Your task to perform on an android device: see sites visited before in the chrome app Image 0: 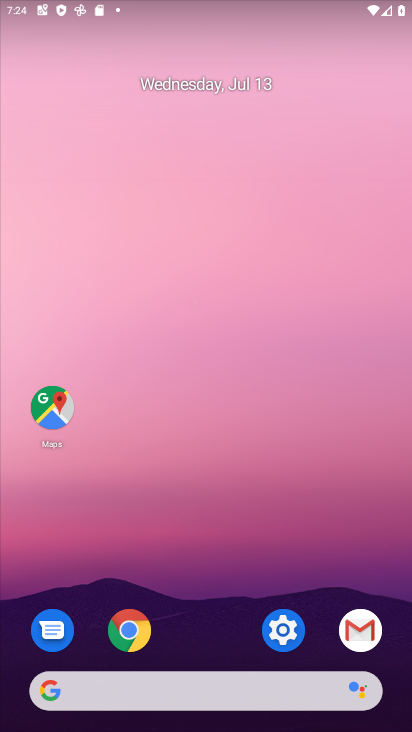
Step 0: press home button
Your task to perform on an android device: see sites visited before in the chrome app Image 1: 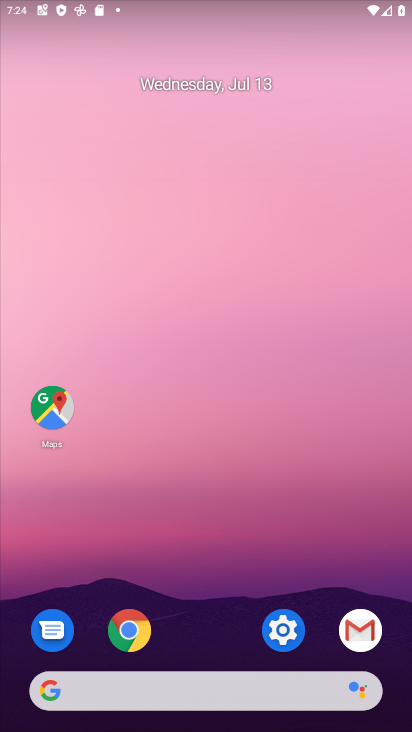
Step 1: click (133, 615)
Your task to perform on an android device: see sites visited before in the chrome app Image 2: 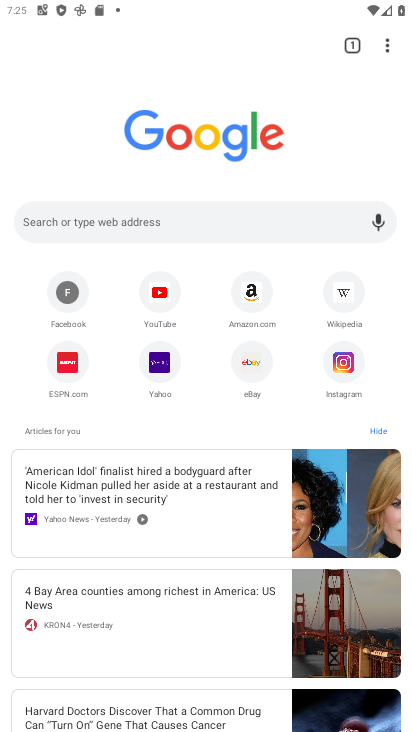
Step 2: click (391, 58)
Your task to perform on an android device: see sites visited before in the chrome app Image 3: 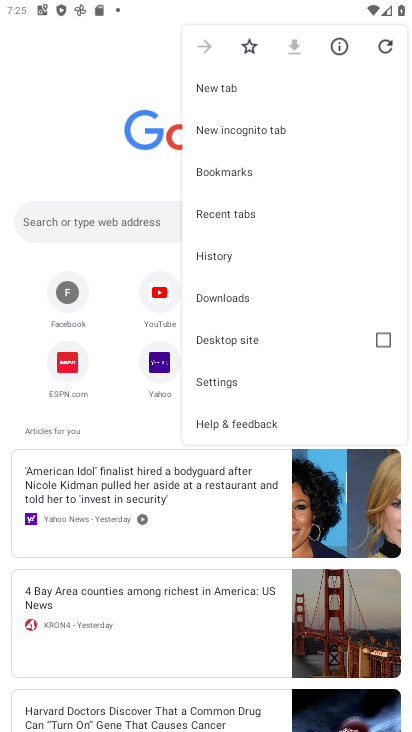
Step 3: click (229, 380)
Your task to perform on an android device: see sites visited before in the chrome app Image 4: 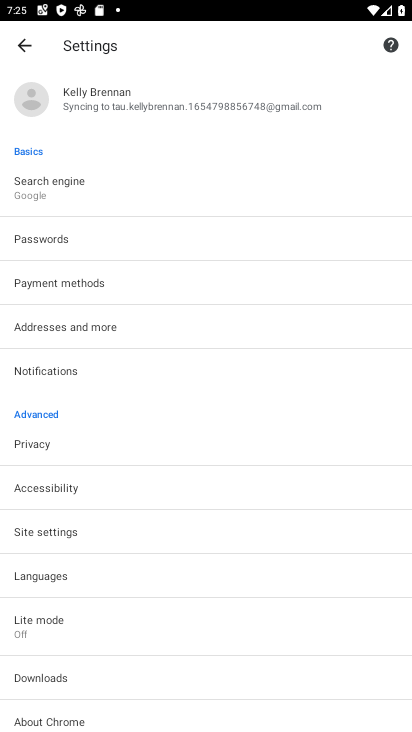
Step 4: click (50, 535)
Your task to perform on an android device: see sites visited before in the chrome app Image 5: 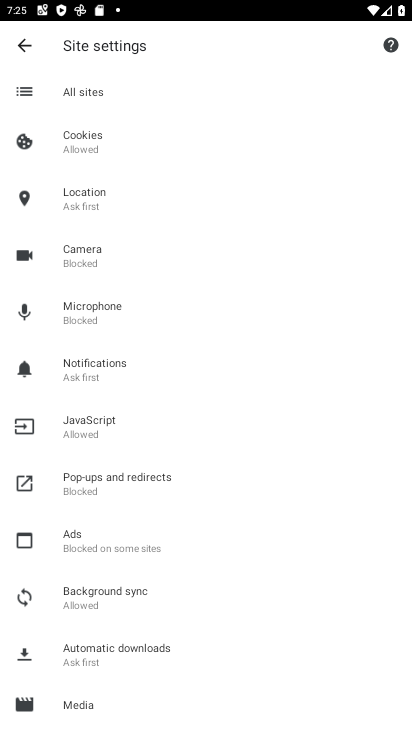
Step 5: click (101, 97)
Your task to perform on an android device: see sites visited before in the chrome app Image 6: 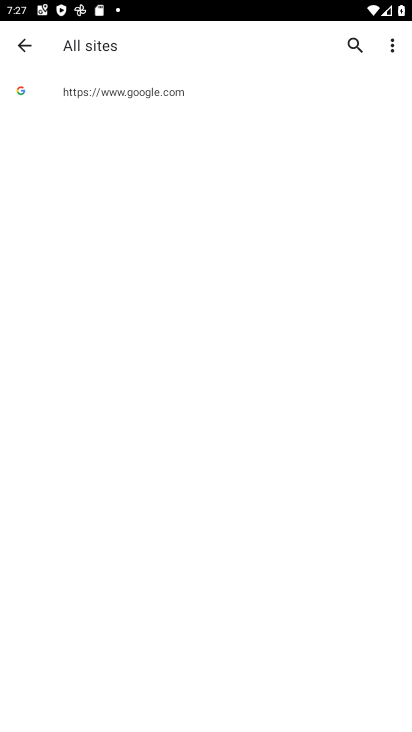
Step 6: task complete